Your task to perform on an android device: Is it going to rain this weekend? Image 0: 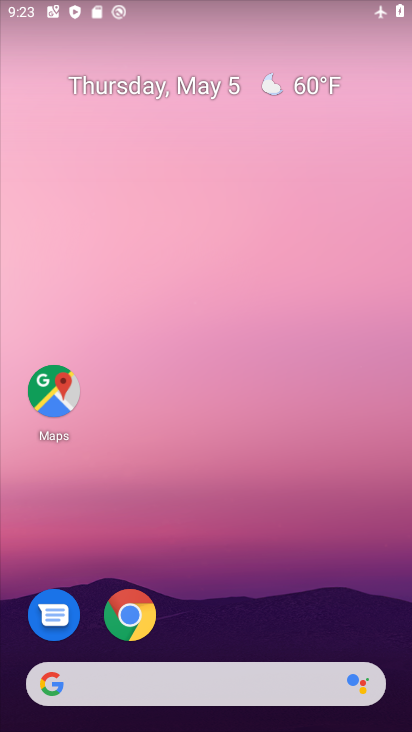
Step 0: drag from (290, 613) to (249, 111)
Your task to perform on an android device: Is it going to rain this weekend? Image 1: 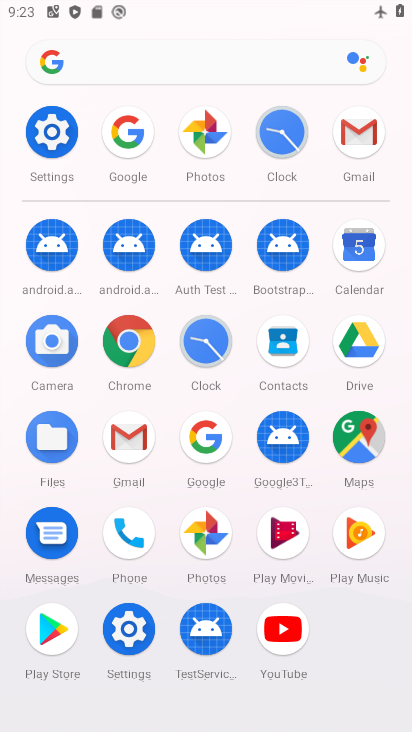
Step 1: click (199, 437)
Your task to perform on an android device: Is it going to rain this weekend? Image 2: 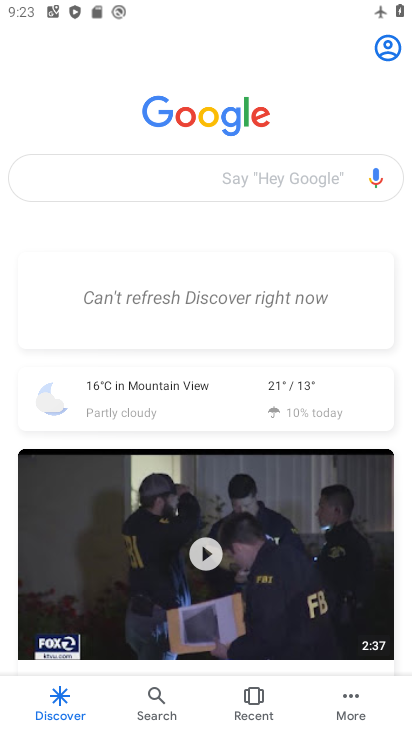
Step 2: click (225, 183)
Your task to perform on an android device: Is it going to rain this weekend? Image 3: 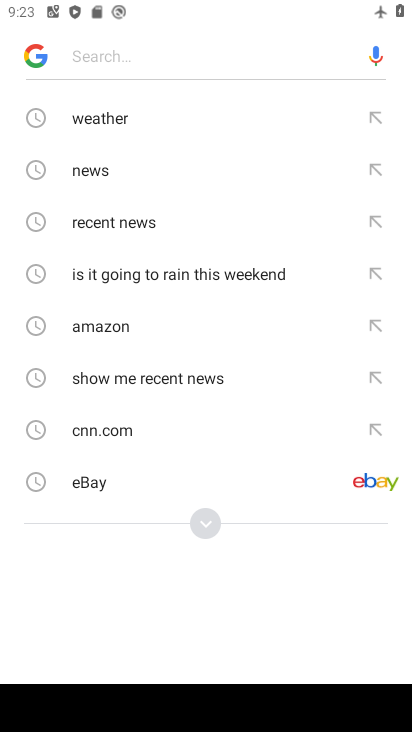
Step 3: click (231, 277)
Your task to perform on an android device: Is it going to rain this weekend? Image 4: 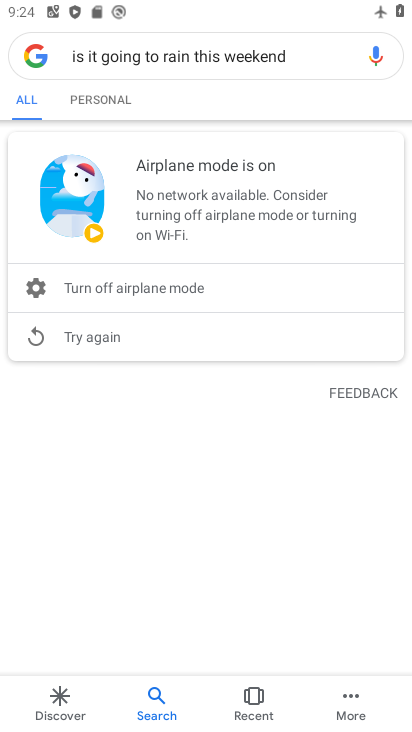
Step 4: task complete